Your task to perform on an android device: turn off smart reply in the gmail app Image 0: 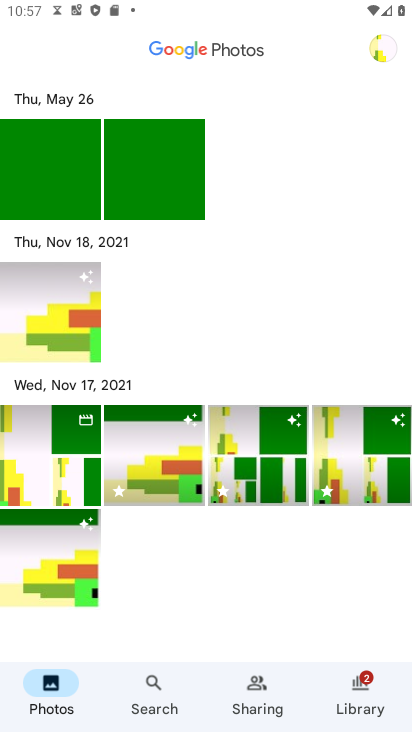
Step 0: press home button
Your task to perform on an android device: turn off smart reply in the gmail app Image 1: 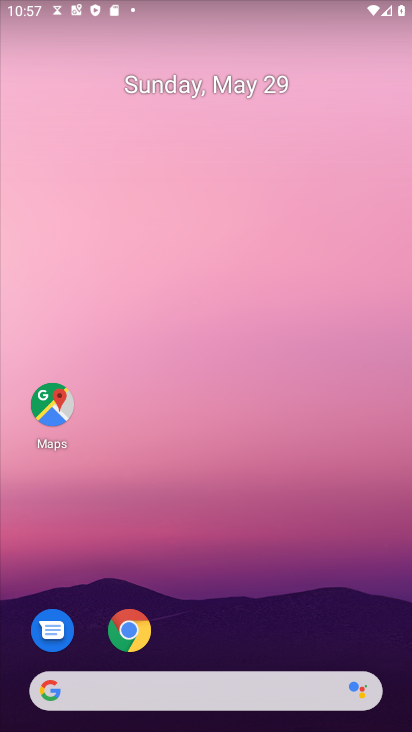
Step 1: drag from (230, 606) to (315, 62)
Your task to perform on an android device: turn off smart reply in the gmail app Image 2: 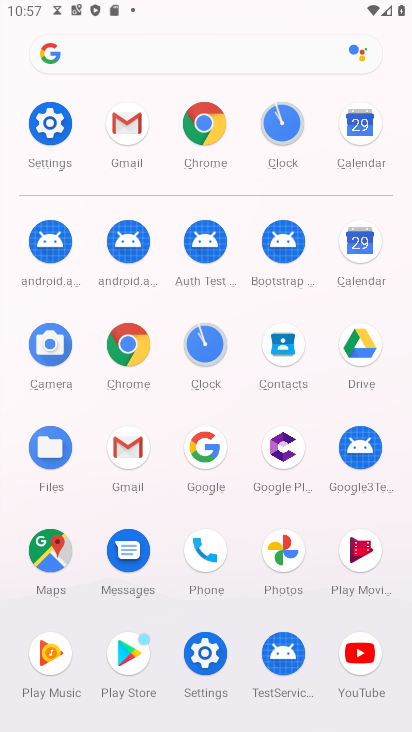
Step 2: click (145, 459)
Your task to perform on an android device: turn off smart reply in the gmail app Image 3: 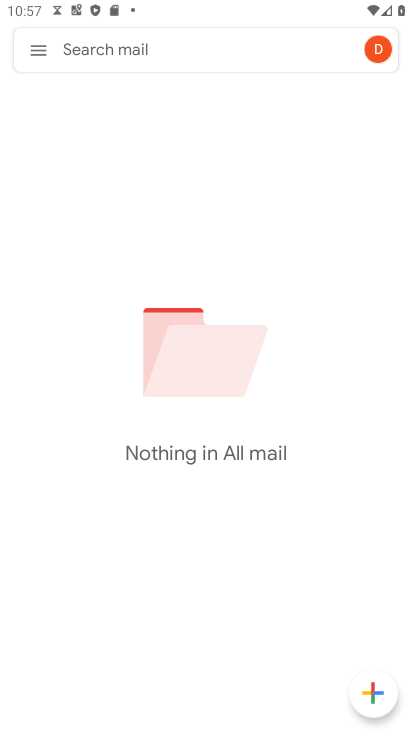
Step 3: click (31, 55)
Your task to perform on an android device: turn off smart reply in the gmail app Image 4: 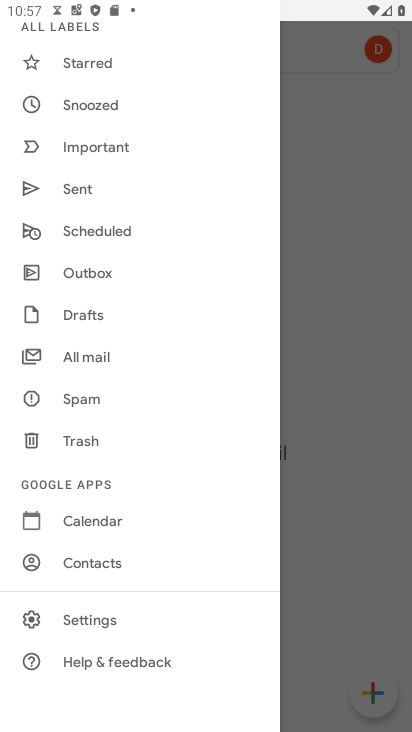
Step 4: click (47, 605)
Your task to perform on an android device: turn off smart reply in the gmail app Image 5: 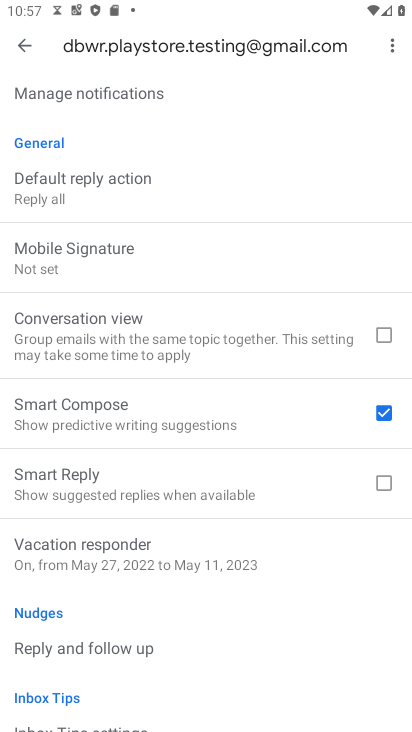
Step 5: task complete